Your task to perform on an android device: Do I have any events today? Image 0: 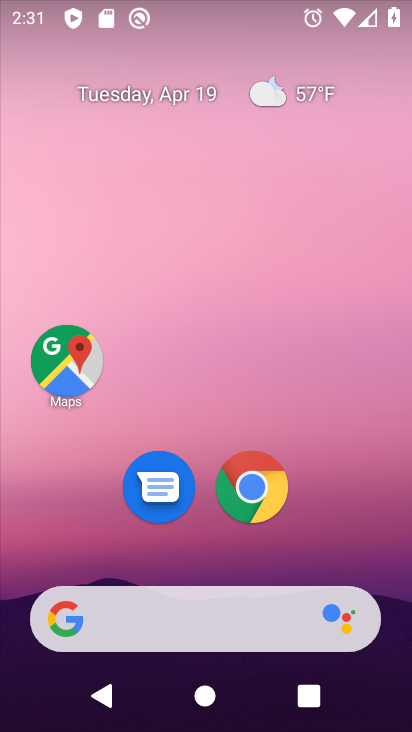
Step 0: drag from (368, 513) to (368, 55)
Your task to perform on an android device: Do I have any events today? Image 1: 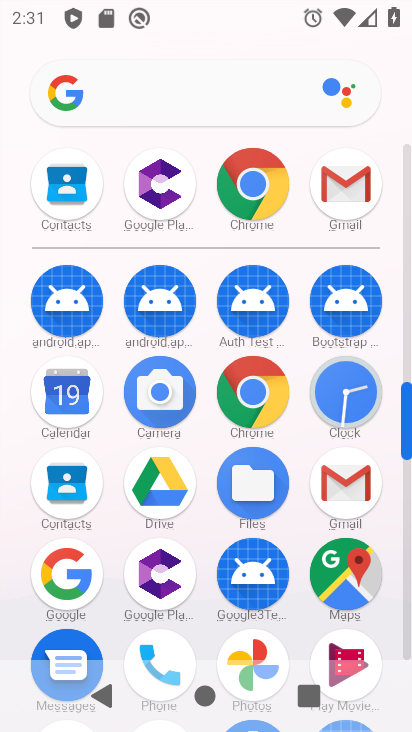
Step 1: click (69, 402)
Your task to perform on an android device: Do I have any events today? Image 2: 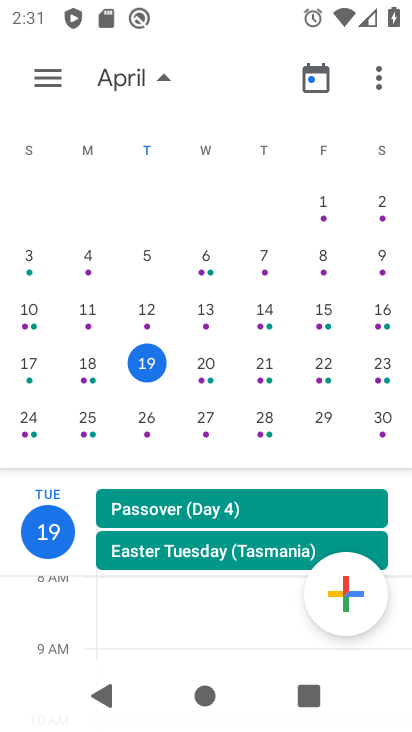
Step 2: task complete